Your task to perform on an android device: Play the last video I watched on Youtube Image 0: 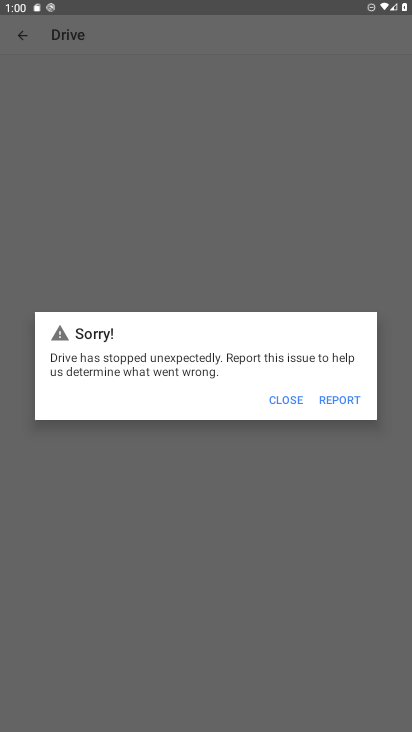
Step 0: press home button
Your task to perform on an android device: Play the last video I watched on Youtube Image 1: 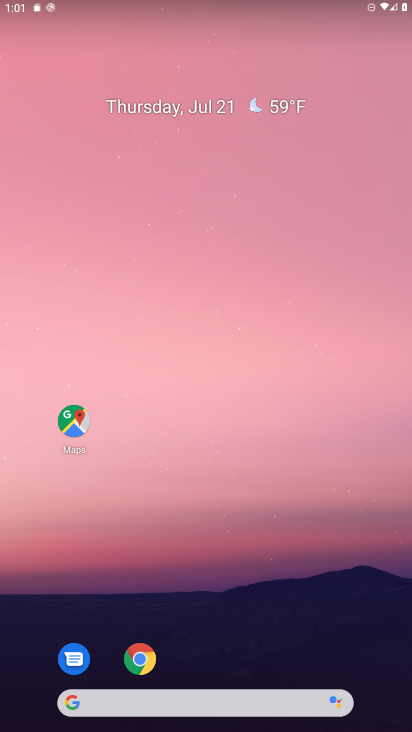
Step 1: drag from (19, 609) to (208, 136)
Your task to perform on an android device: Play the last video I watched on Youtube Image 2: 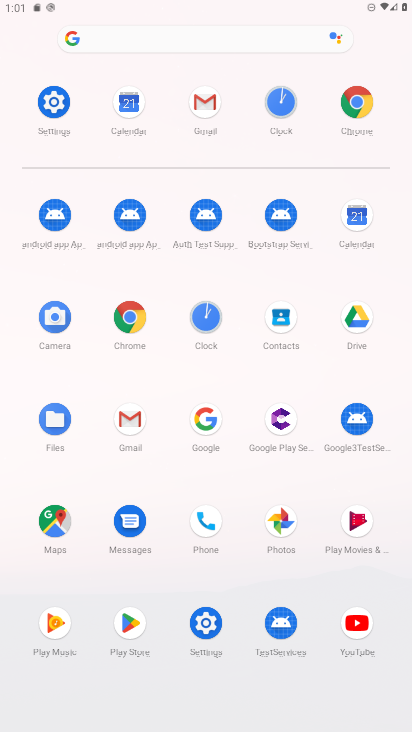
Step 2: click (357, 628)
Your task to perform on an android device: Play the last video I watched on Youtube Image 3: 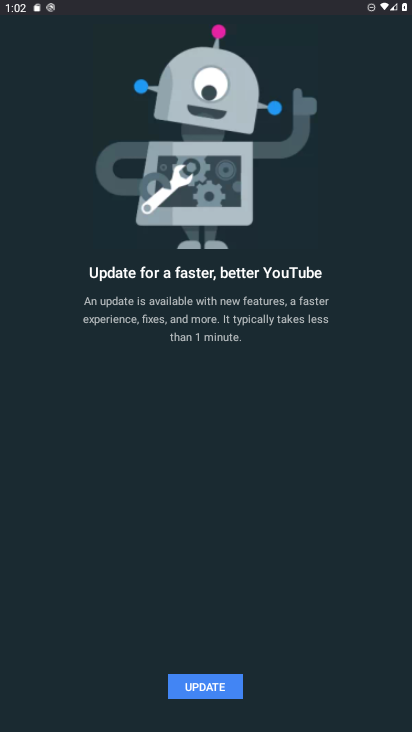
Step 3: task complete